Your task to perform on an android device: show emergency info Image 0: 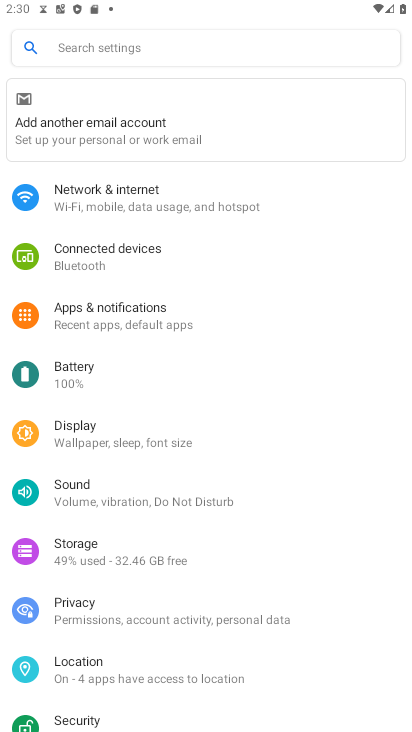
Step 0: drag from (336, 681) to (341, 114)
Your task to perform on an android device: show emergency info Image 1: 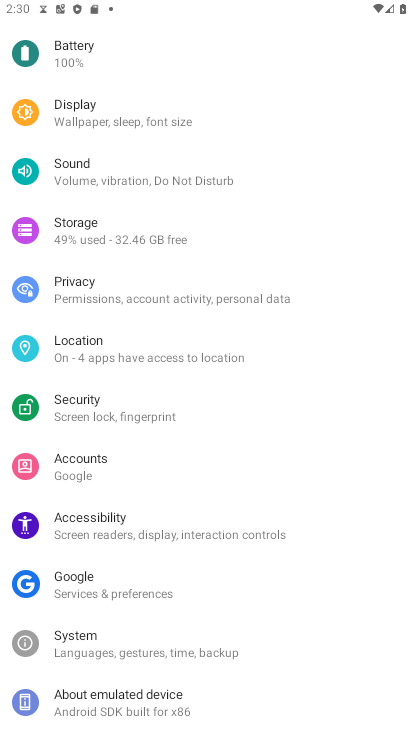
Step 1: click (118, 697)
Your task to perform on an android device: show emergency info Image 2: 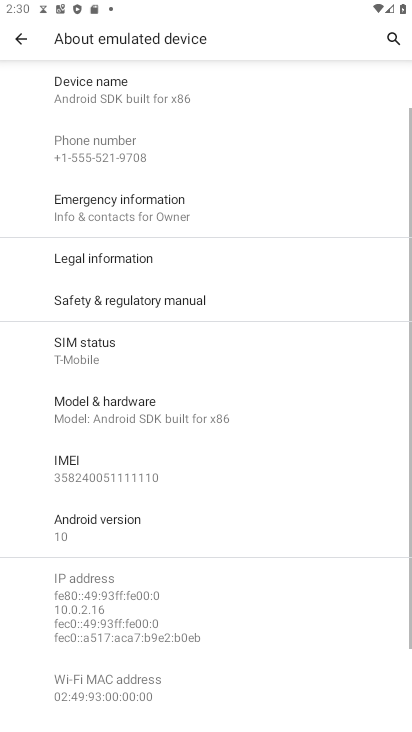
Step 2: drag from (299, 663) to (279, 298)
Your task to perform on an android device: show emergency info Image 3: 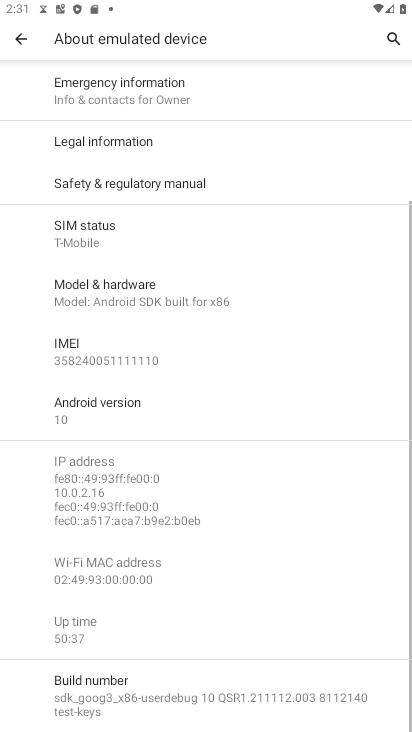
Step 3: click (155, 74)
Your task to perform on an android device: show emergency info Image 4: 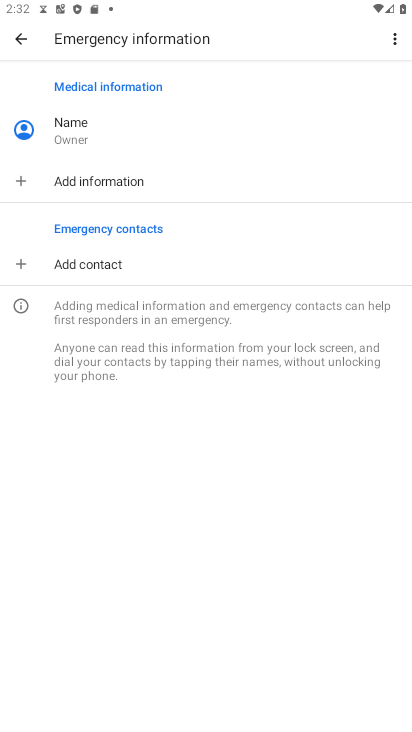
Step 4: task complete